Your task to perform on an android device: change text size in settings app Image 0: 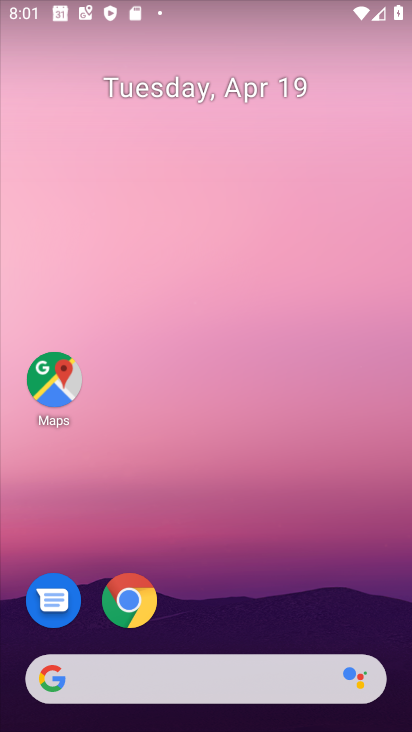
Step 0: drag from (273, 629) to (296, 29)
Your task to perform on an android device: change text size in settings app Image 1: 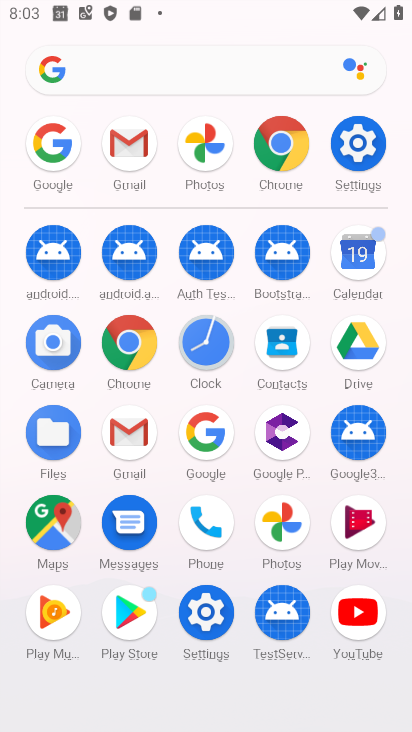
Step 1: click (363, 148)
Your task to perform on an android device: change text size in settings app Image 2: 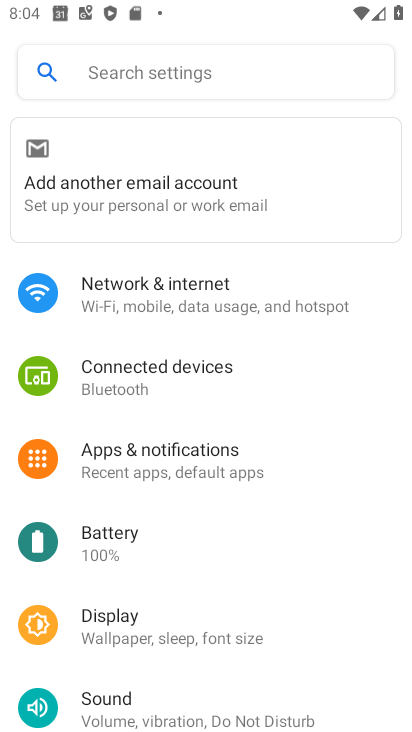
Step 2: click (167, 632)
Your task to perform on an android device: change text size in settings app Image 3: 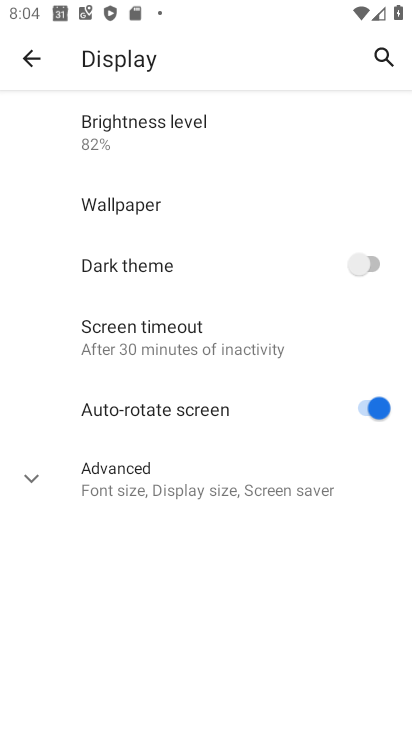
Step 3: click (166, 501)
Your task to perform on an android device: change text size in settings app Image 4: 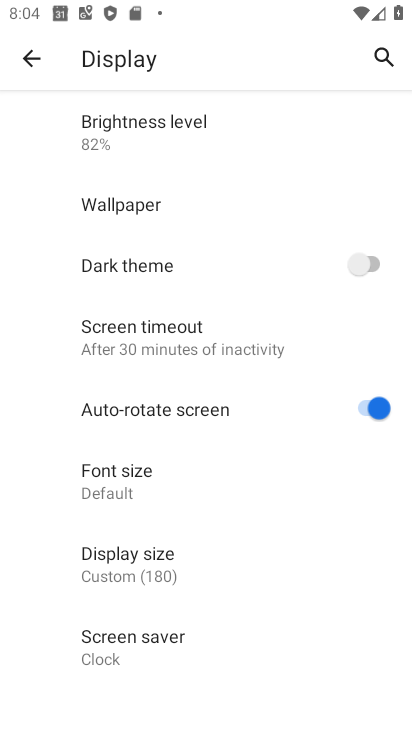
Step 4: click (217, 486)
Your task to perform on an android device: change text size in settings app Image 5: 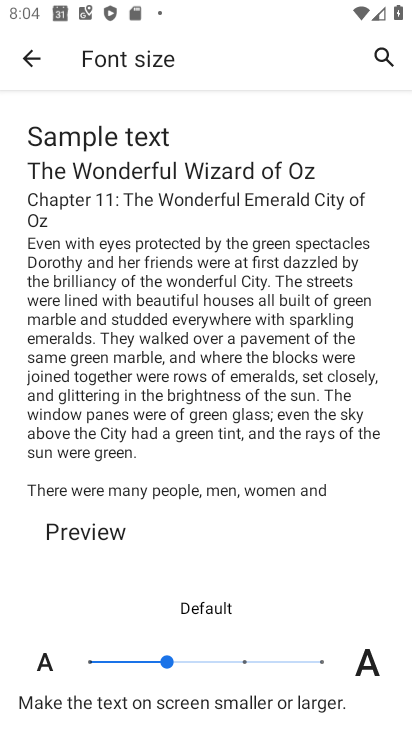
Step 5: click (242, 656)
Your task to perform on an android device: change text size in settings app Image 6: 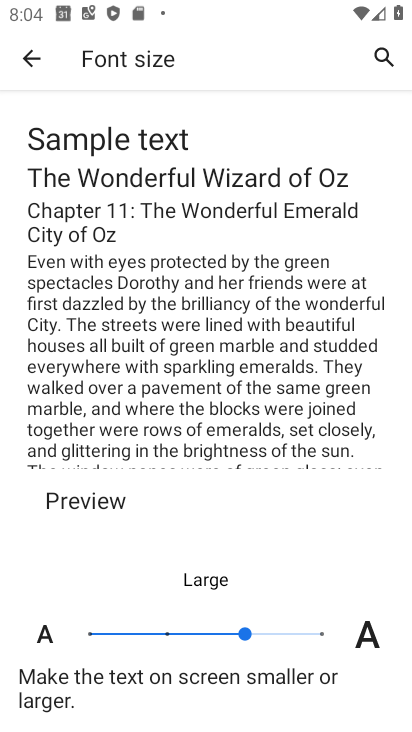
Step 6: task complete